Your task to perform on an android device: Open Chrome and go to settings Image 0: 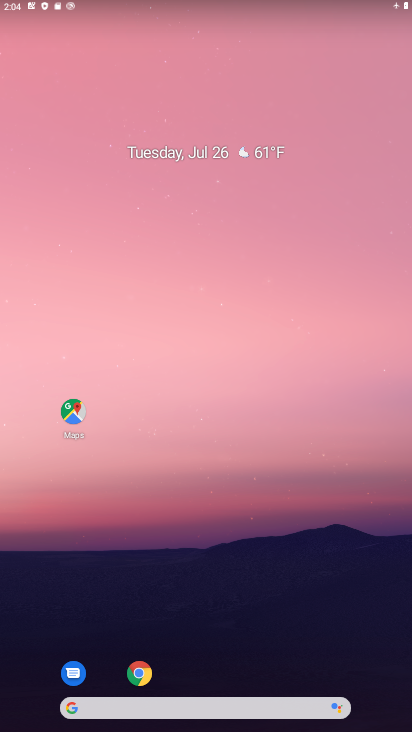
Step 0: drag from (184, 661) to (284, 115)
Your task to perform on an android device: Open Chrome and go to settings Image 1: 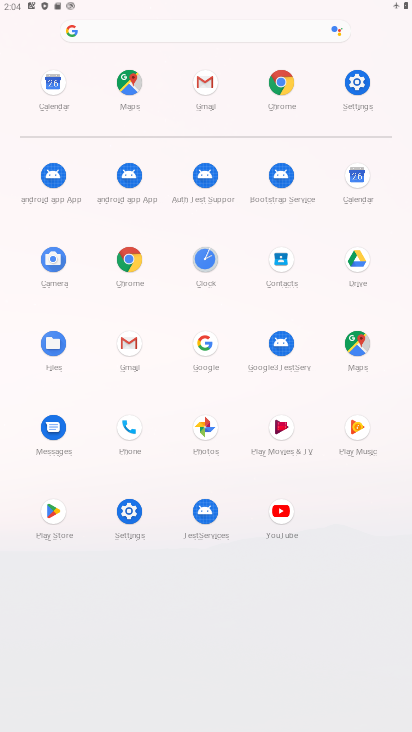
Step 1: click (278, 80)
Your task to perform on an android device: Open Chrome and go to settings Image 2: 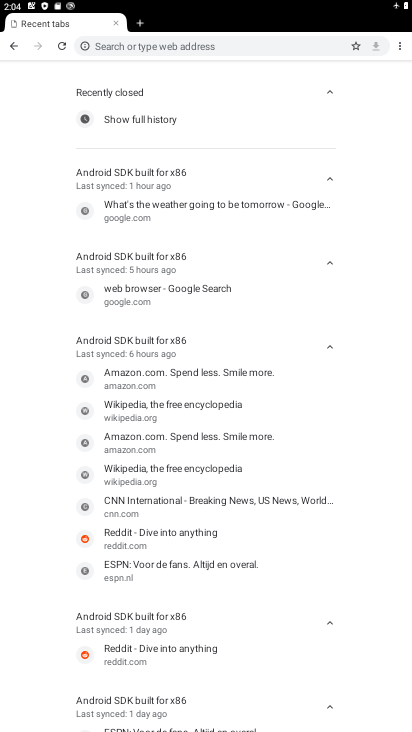
Step 2: task complete